Your task to perform on an android device: Show me recent news Image 0: 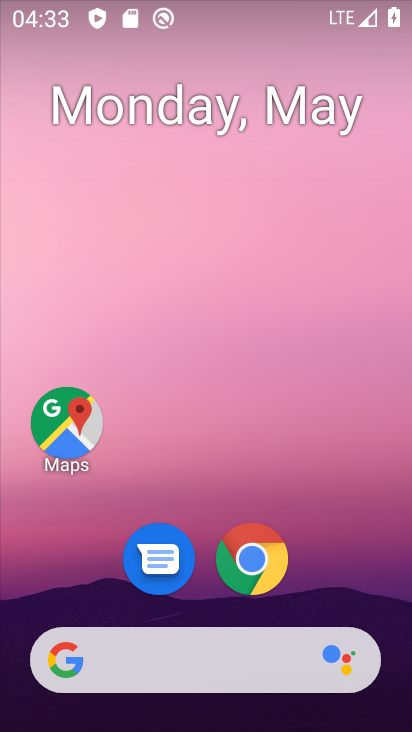
Step 0: drag from (254, 609) to (281, 54)
Your task to perform on an android device: Show me recent news Image 1: 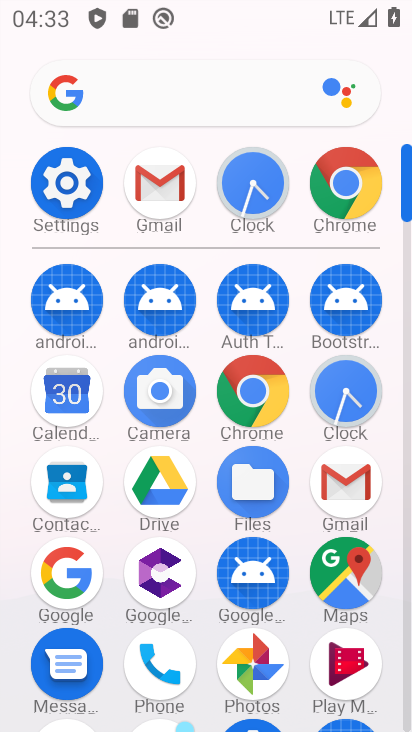
Step 1: click (264, 404)
Your task to perform on an android device: Show me recent news Image 2: 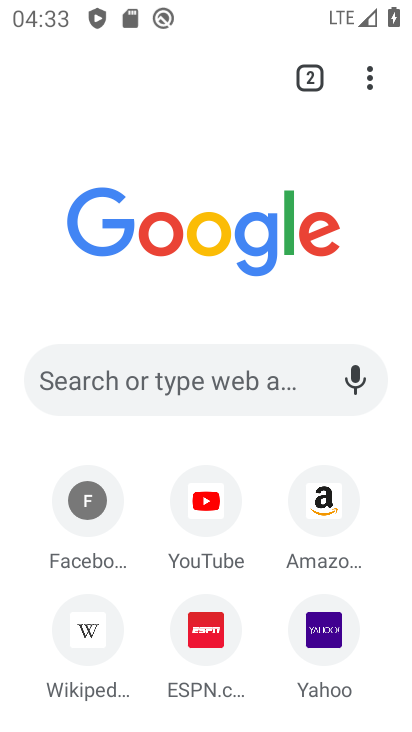
Step 2: click (262, 389)
Your task to perform on an android device: Show me recent news Image 3: 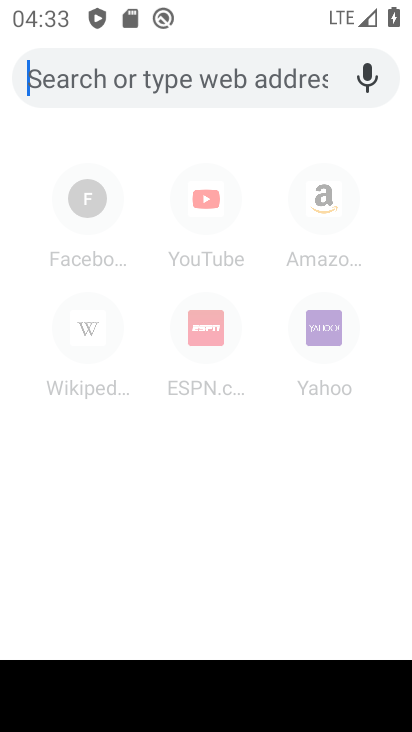
Step 3: type "recent news"
Your task to perform on an android device: Show me recent news Image 4: 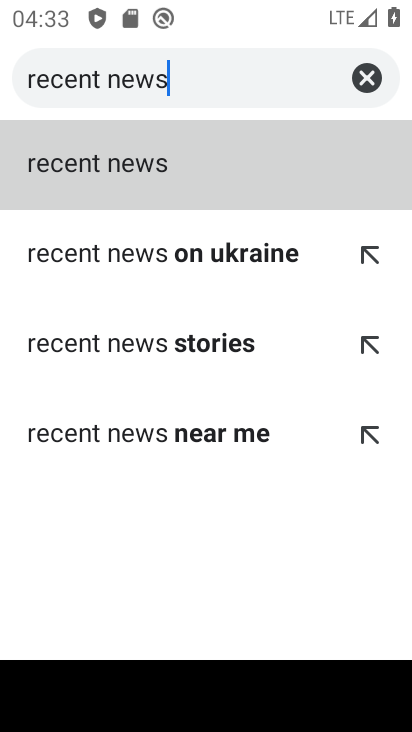
Step 4: click (270, 172)
Your task to perform on an android device: Show me recent news Image 5: 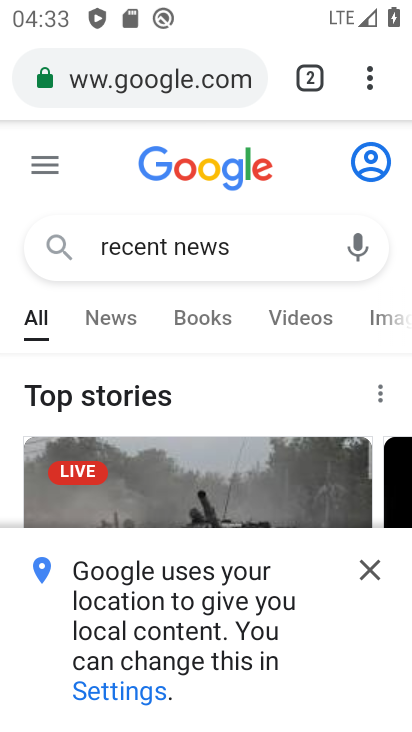
Step 5: task complete